Your task to perform on an android device: search for starred emails in the gmail app Image 0: 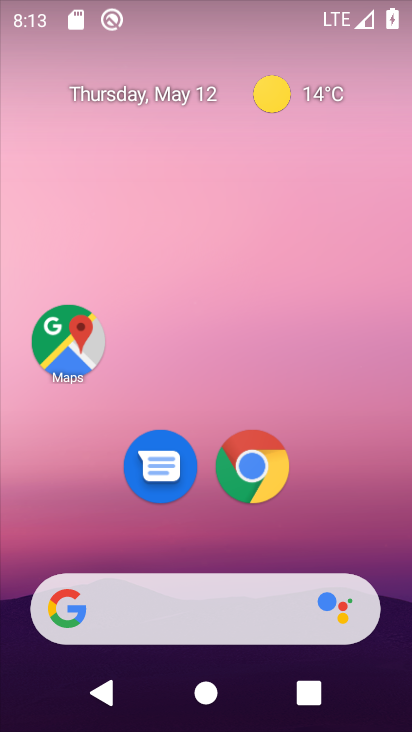
Step 0: drag from (200, 542) to (279, 133)
Your task to perform on an android device: search for starred emails in the gmail app Image 1: 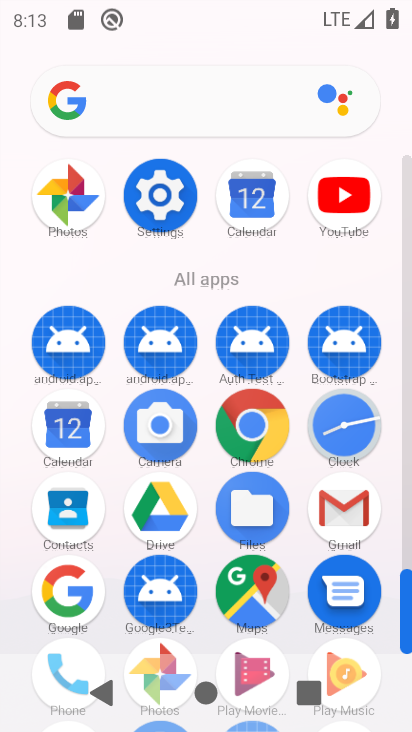
Step 1: click (341, 504)
Your task to perform on an android device: search for starred emails in the gmail app Image 2: 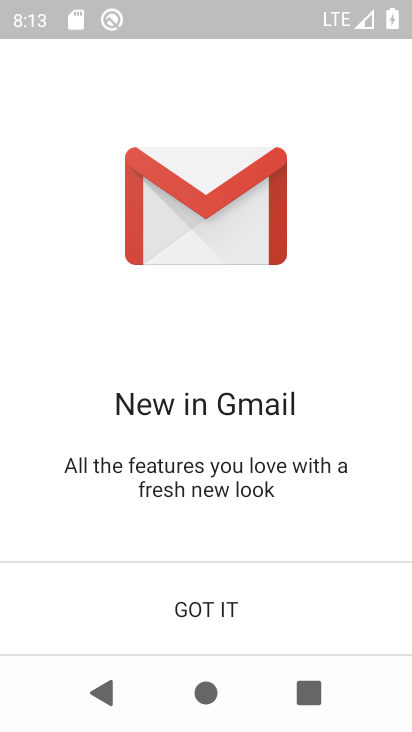
Step 2: click (206, 616)
Your task to perform on an android device: search for starred emails in the gmail app Image 3: 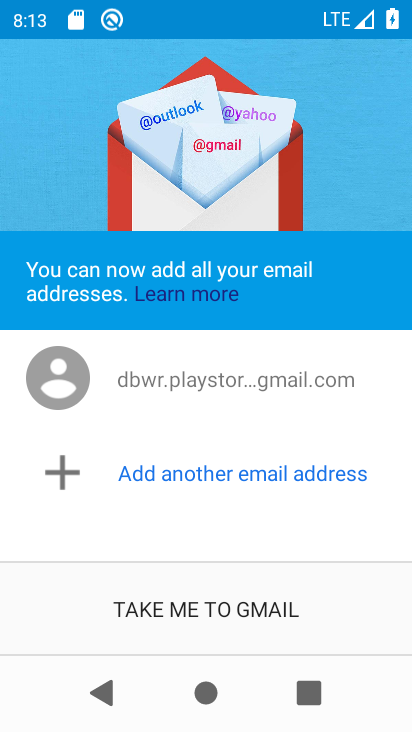
Step 3: click (240, 618)
Your task to perform on an android device: search for starred emails in the gmail app Image 4: 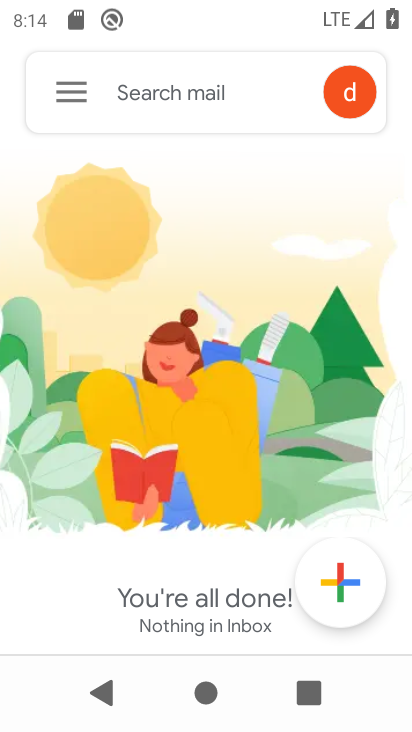
Step 4: click (61, 96)
Your task to perform on an android device: search for starred emails in the gmail app Image 5: 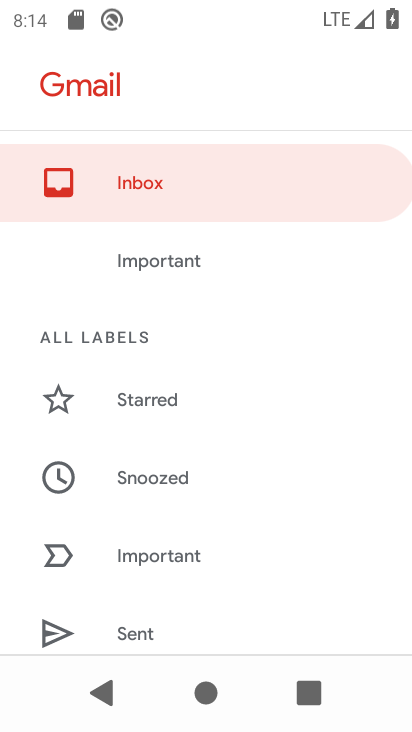
Step 5: click (184, 398)
Your task to perform on an android device: search for starred emails in the gmail app Image 6: 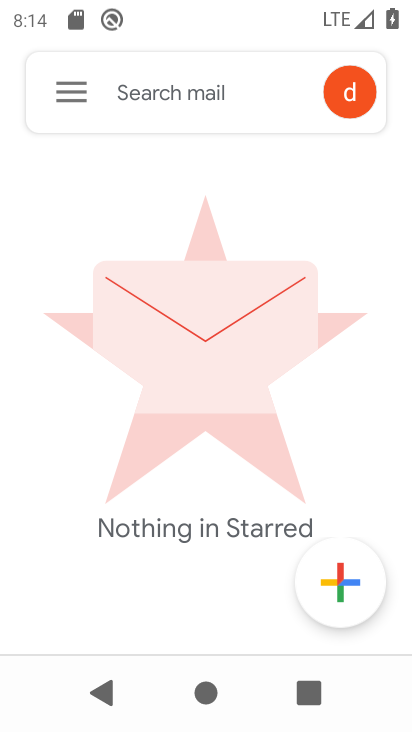
Step 6: task complete